Your task to perform on an android device: When is my next appointment? Image 0: 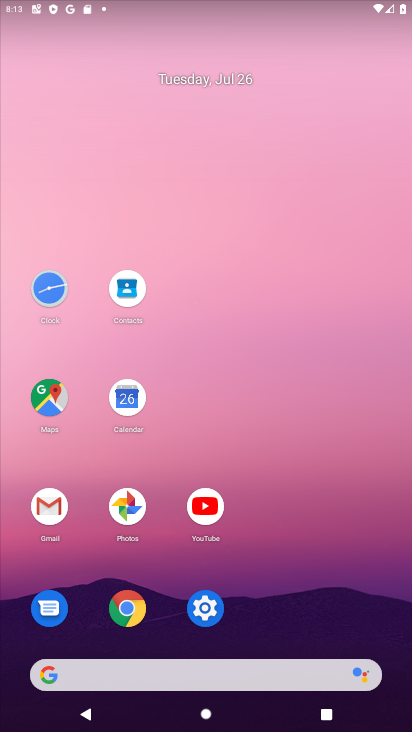
Step 0: click (121, 397)
Your task to perform on an android device: When is my next appointment? Image 1: 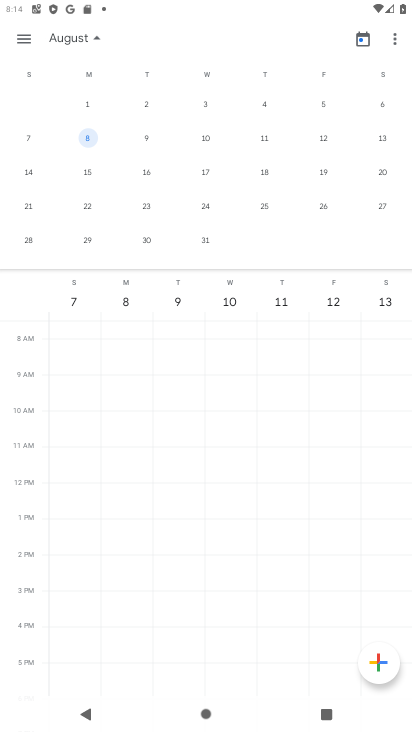
Step 1: drag from (37, 158) to (348, 212)
Your task to perform on an android device: When is my next appointment? Image 2: 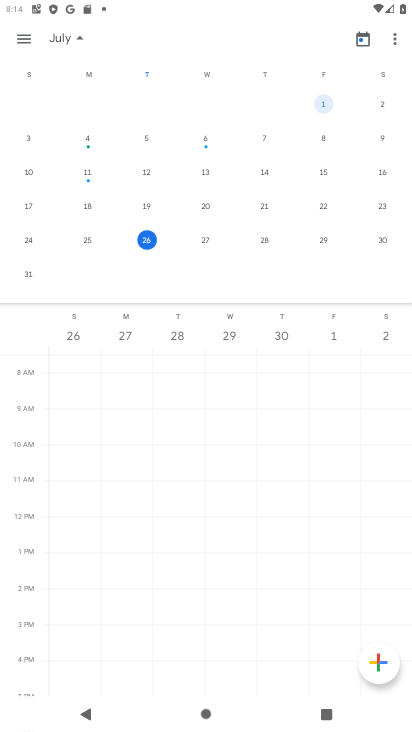
Step 2: click (140, 237)
Your task to perform on an android device: When is my next appointment? Image 3: 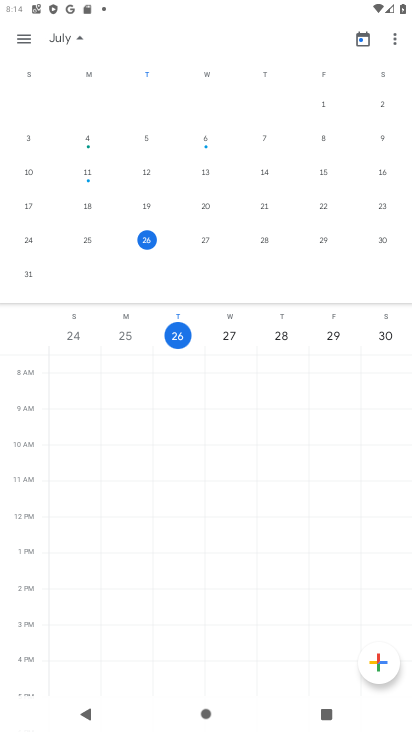
Step 3: click (147, 240)
Your task to perform on an android device: When is my next appointment? Image 4: 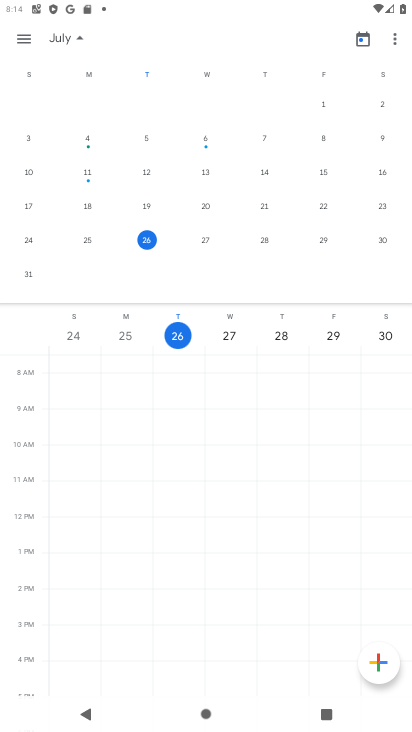
Step 4: task complete